Your task to perform on an android device: Open display settings Image 0: 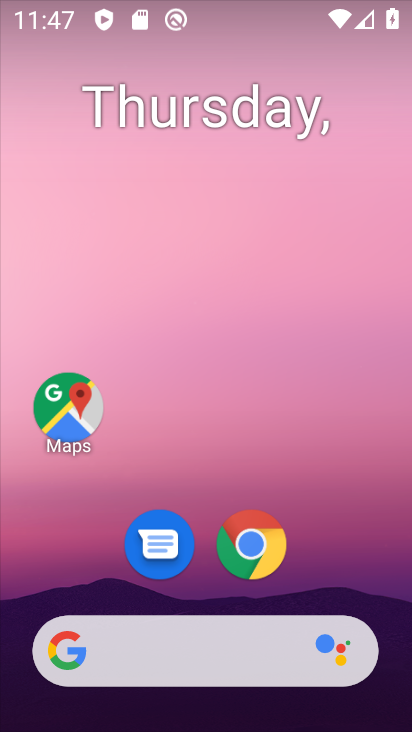
Step 0: drag from (223, 585) to (159, 15)
Your task to perform on an android device: Open display settings Image 1: 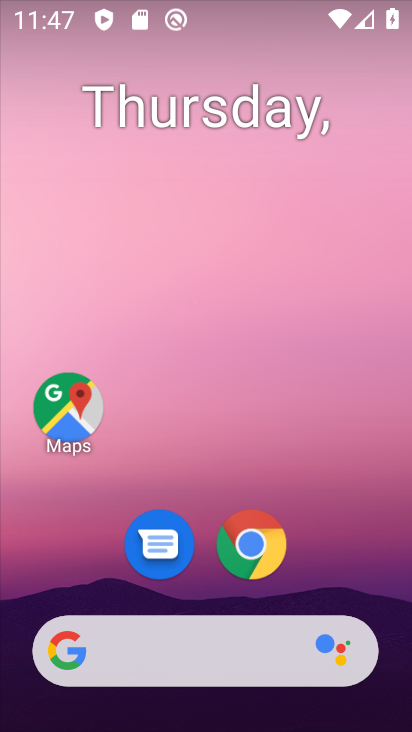
Step 1: drag from (217, 597) to (290, 0)
Your task to perform on an android device: Open display settings Image 2: 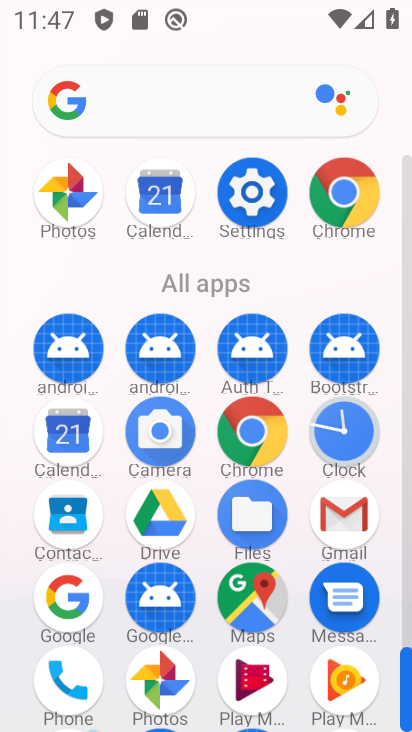
Step 2: click (259, 201)
Your task to perform on an android device: Open display settings Image 3: 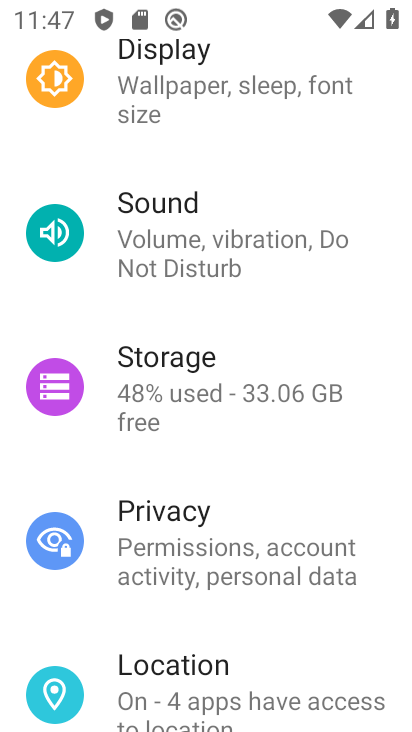
Step 3: click (182, 113)
Your task to perform on an android device: Open display settings Image 4: 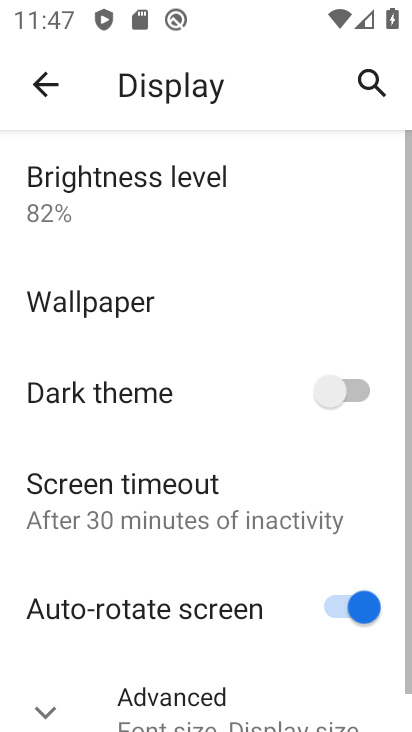
Step 4: task complete